Your task to perform on an android device: Search for razer blade on bestbuy, select the first entry, and add it to the cart. Image 0: 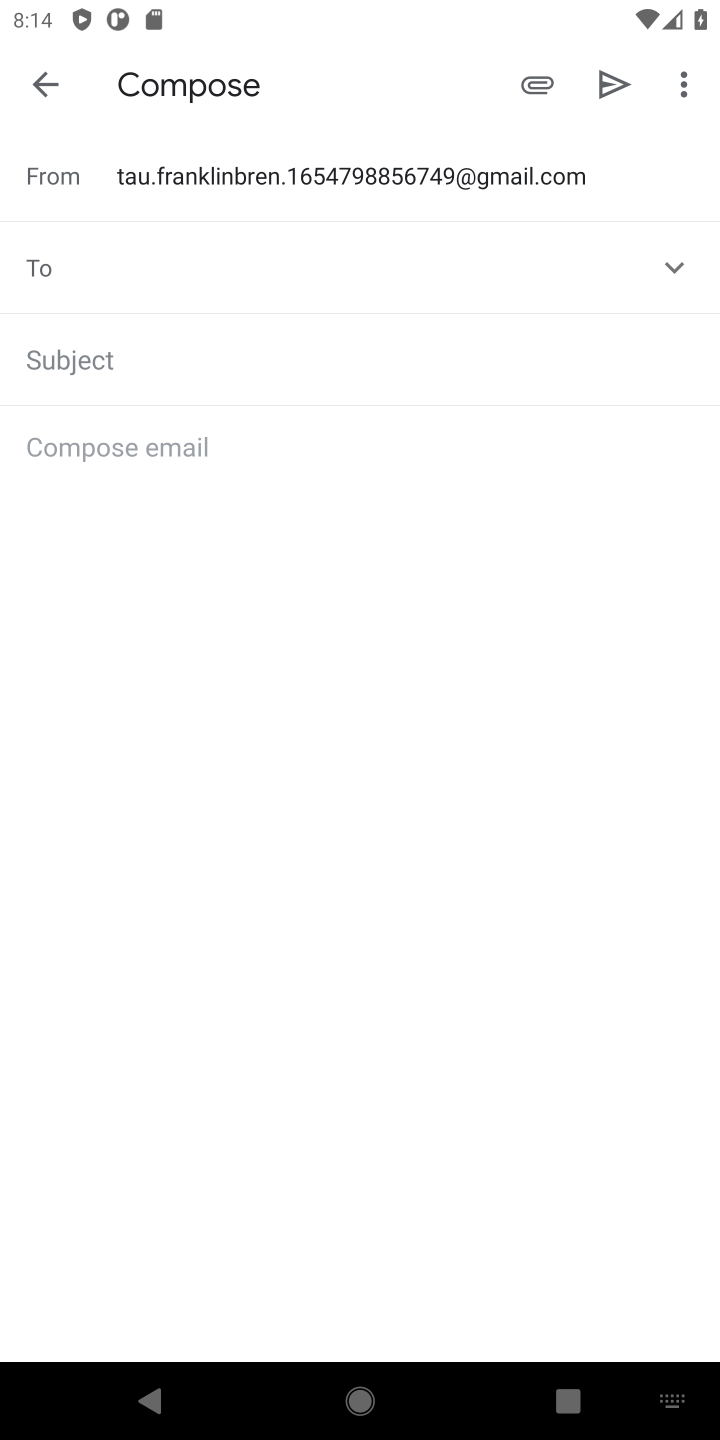
Step 0: press home button
Your task to perform on an android device: Search for razer blade on bestbuy, select the first entry, and add it to the cart. Image 1: 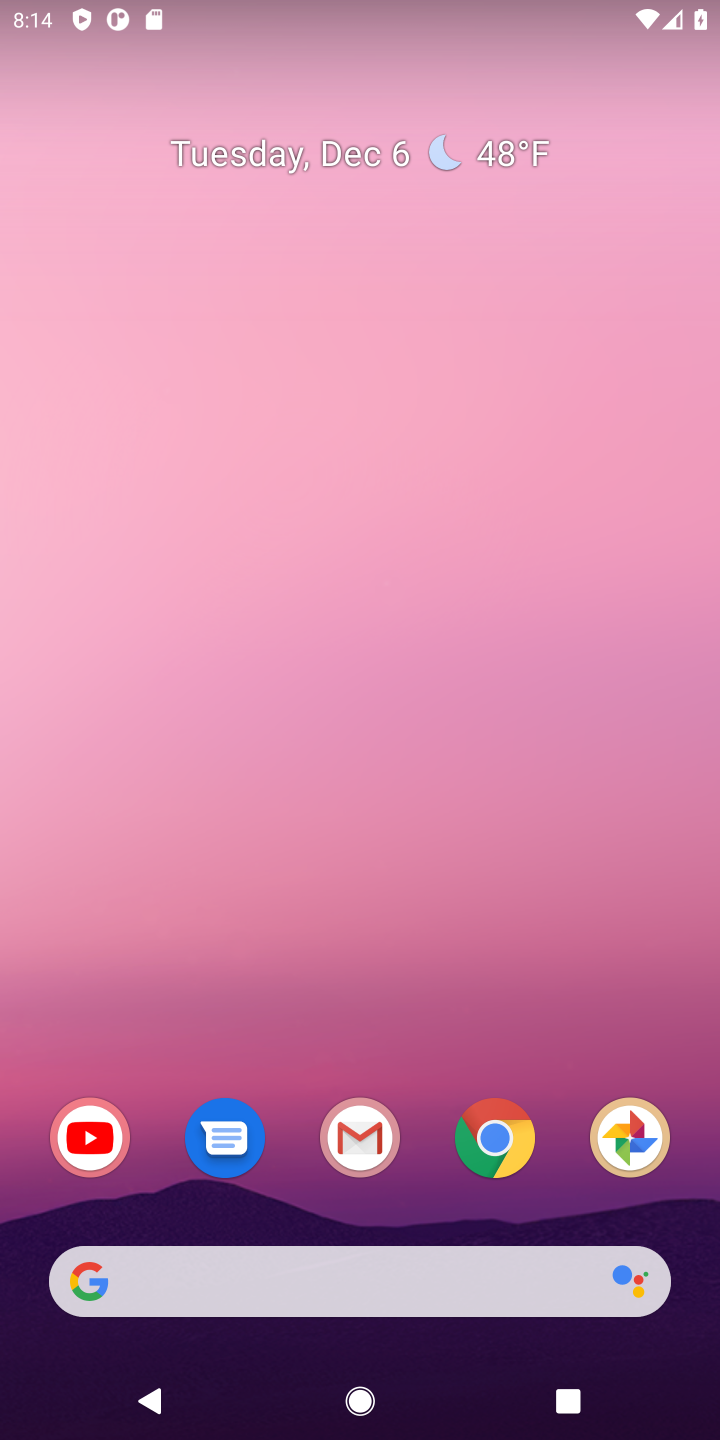
Step 1: click (483, 1144)
Your task to perform on an android device: Search for razer blade on bestbuy, select the first entry, and add it to the cart. Image 2: 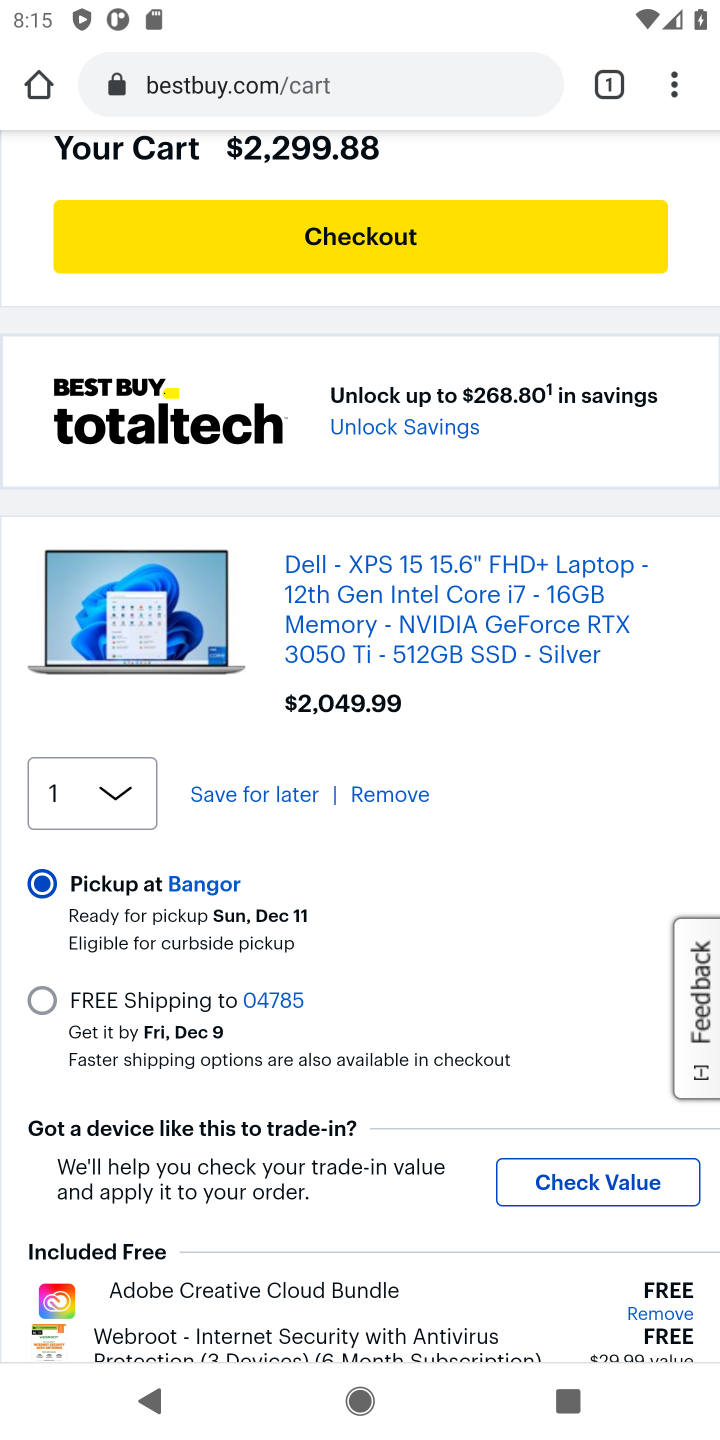
Step 2: drag from (571, 341) to (627, 982)
Your task to perform on an android device: Search for razer blade on bestbuy, select the first entry, and add it to the cart. Image 3: 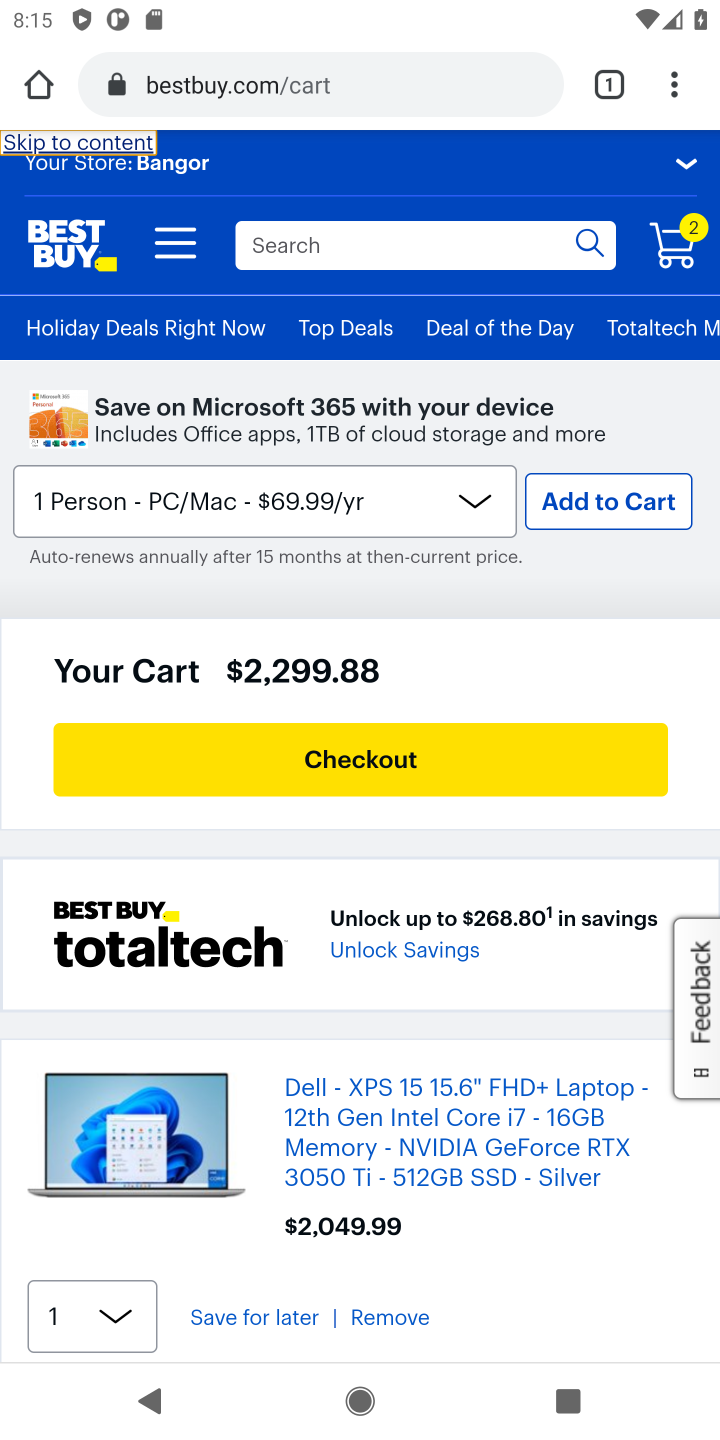
Step 3: click (347, 250)
Your task to perform on an android device: Search for razer blade on bestbuy, select the first entry, and add it to the cart. Image 4: 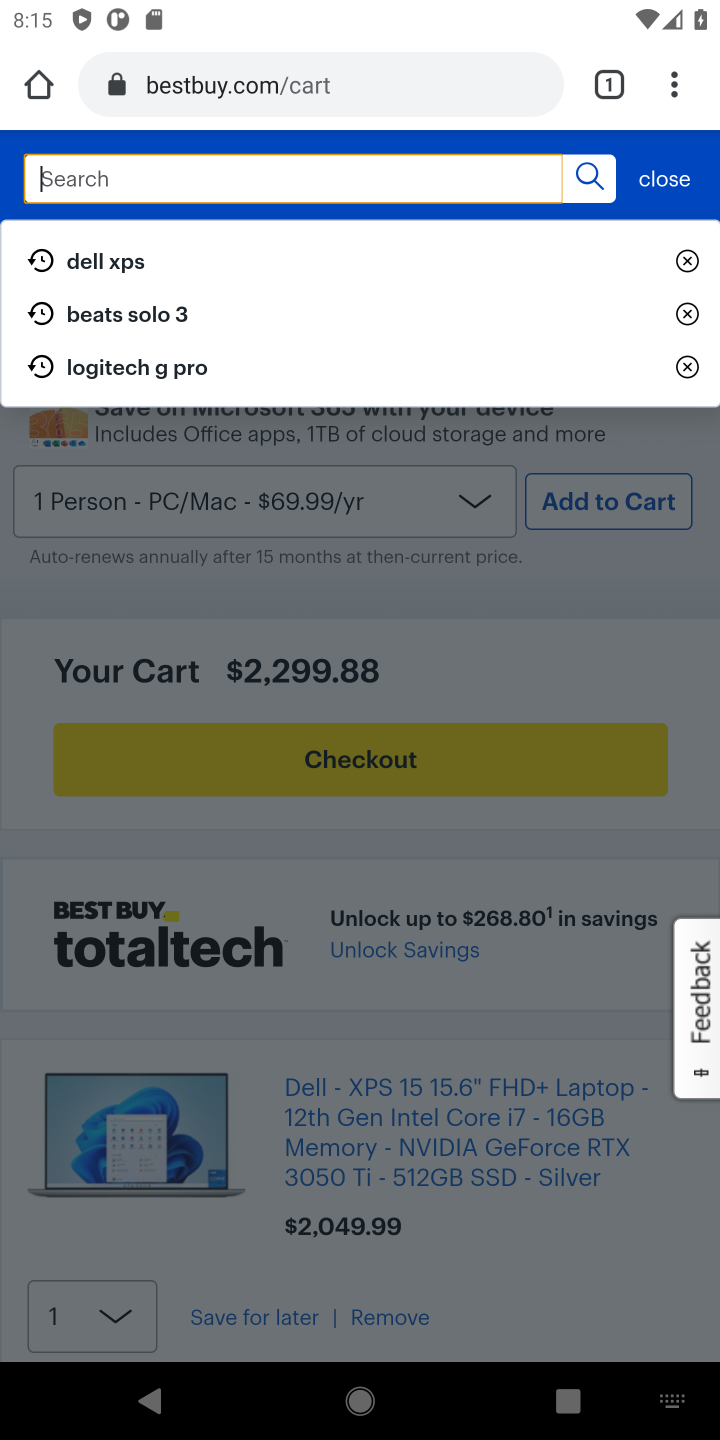
Step 4: type "razer blade"
Your task to perform on an android device: Search for razer blade on bestbuy, select the first entry, and add it to the cart. Image 5: 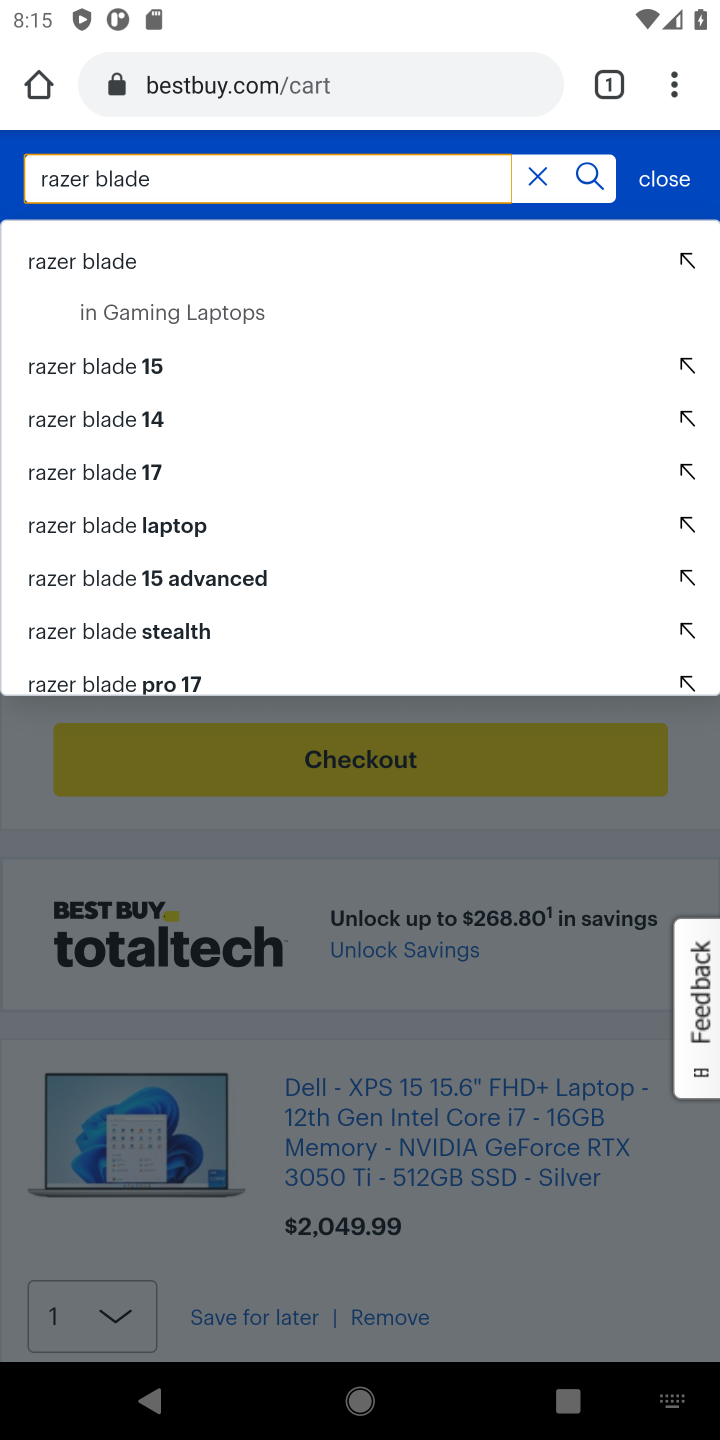
Step 5: click (106, 261)
Your task to perform on an android device: Search for razer blade on bestbuy, select the first entry, and add it to the cart. Image 6: 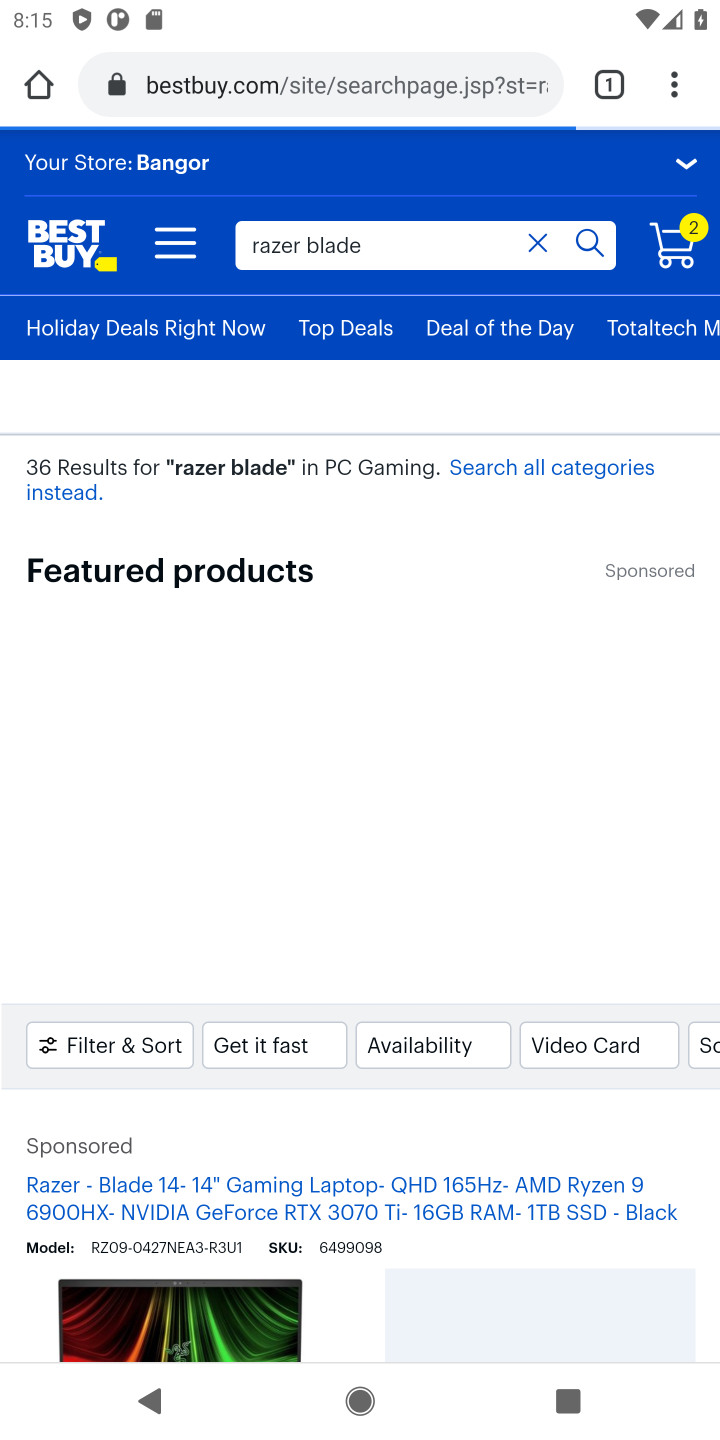
Step 6: drag from (324, 814) to (334, 309)
Your task to perform on an android device: Search for razer blade on bestbuy, select the first entry, and add it to the cart. Image 7: 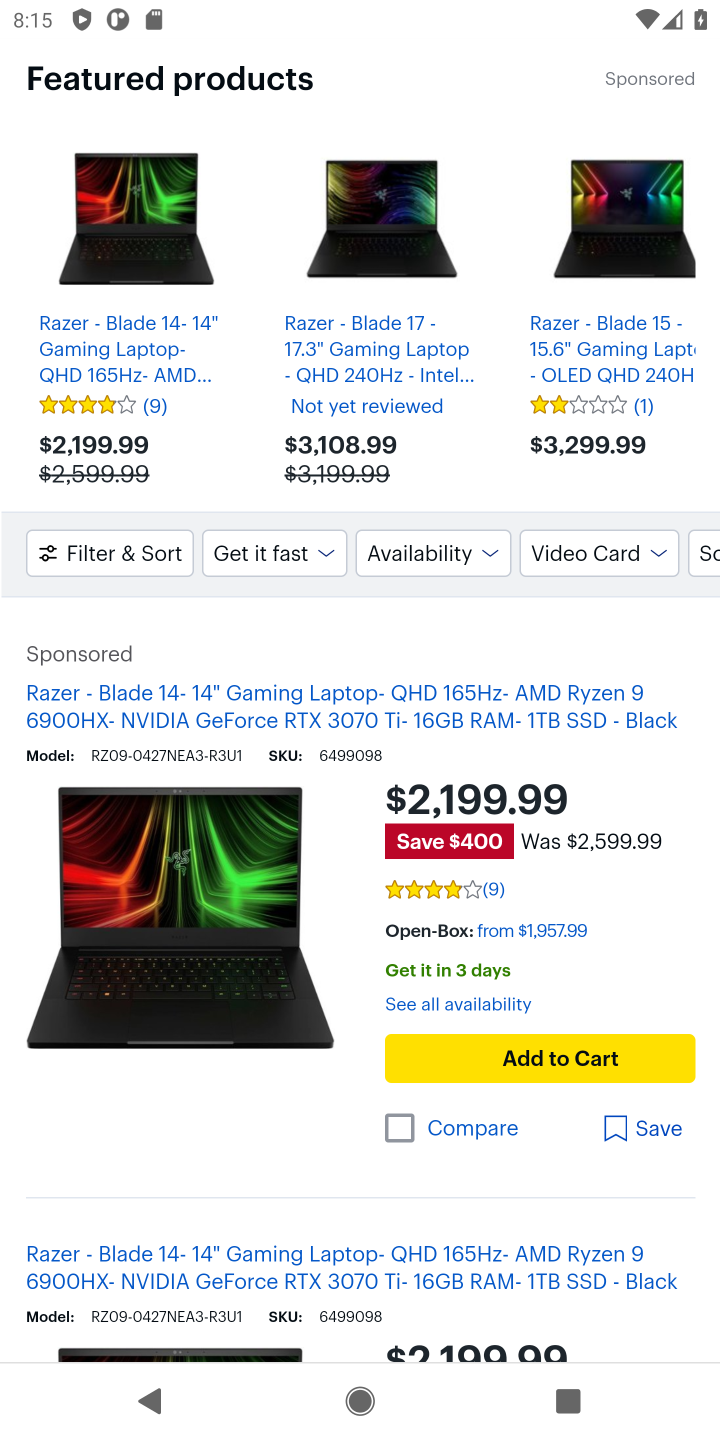
Step 7: click (526, 1045)
Your task to perform on an android device: Search for razer blade on bestbuy, select the first entry, and add it to the cart. Image 8: 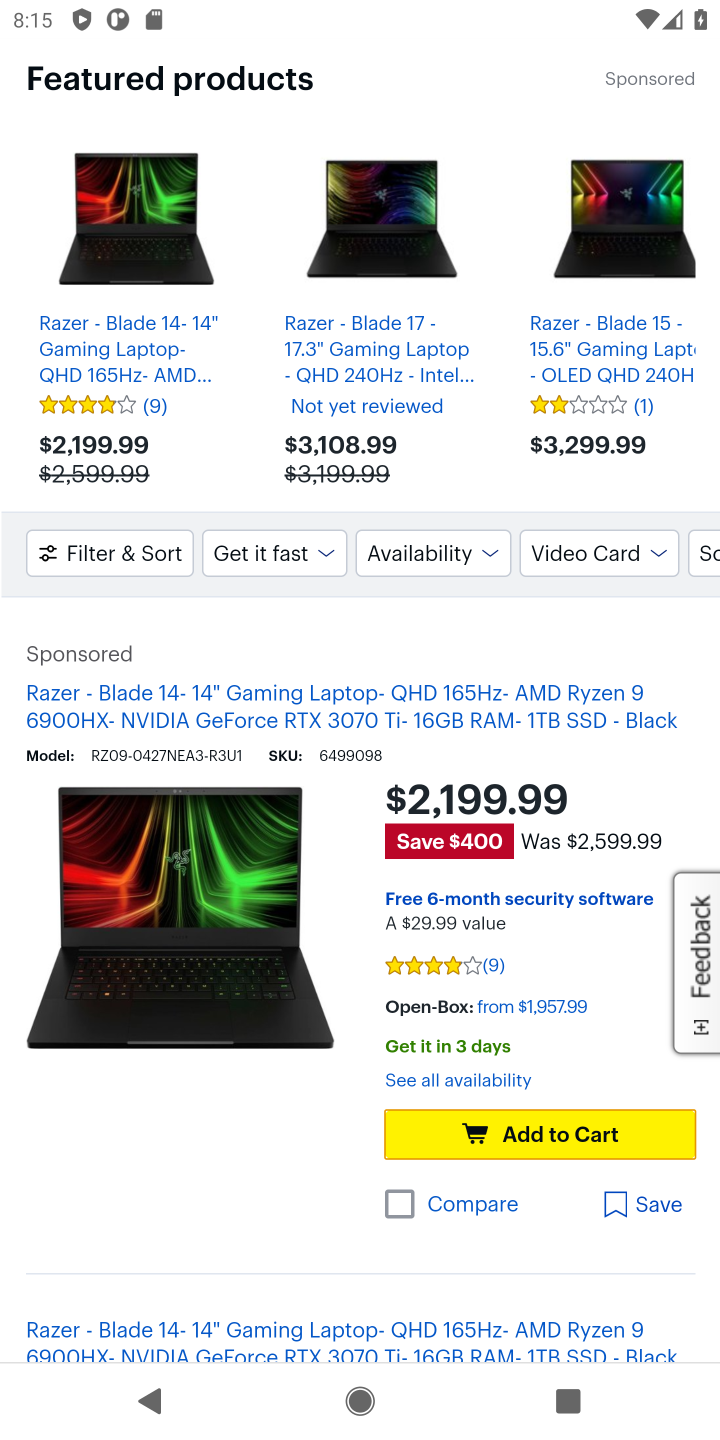
Step 8: click (526, 1133)
Your task to perform on an android device: Search for razer blade on bestbuy, select the first entry, and add it to the cart. Image 9: 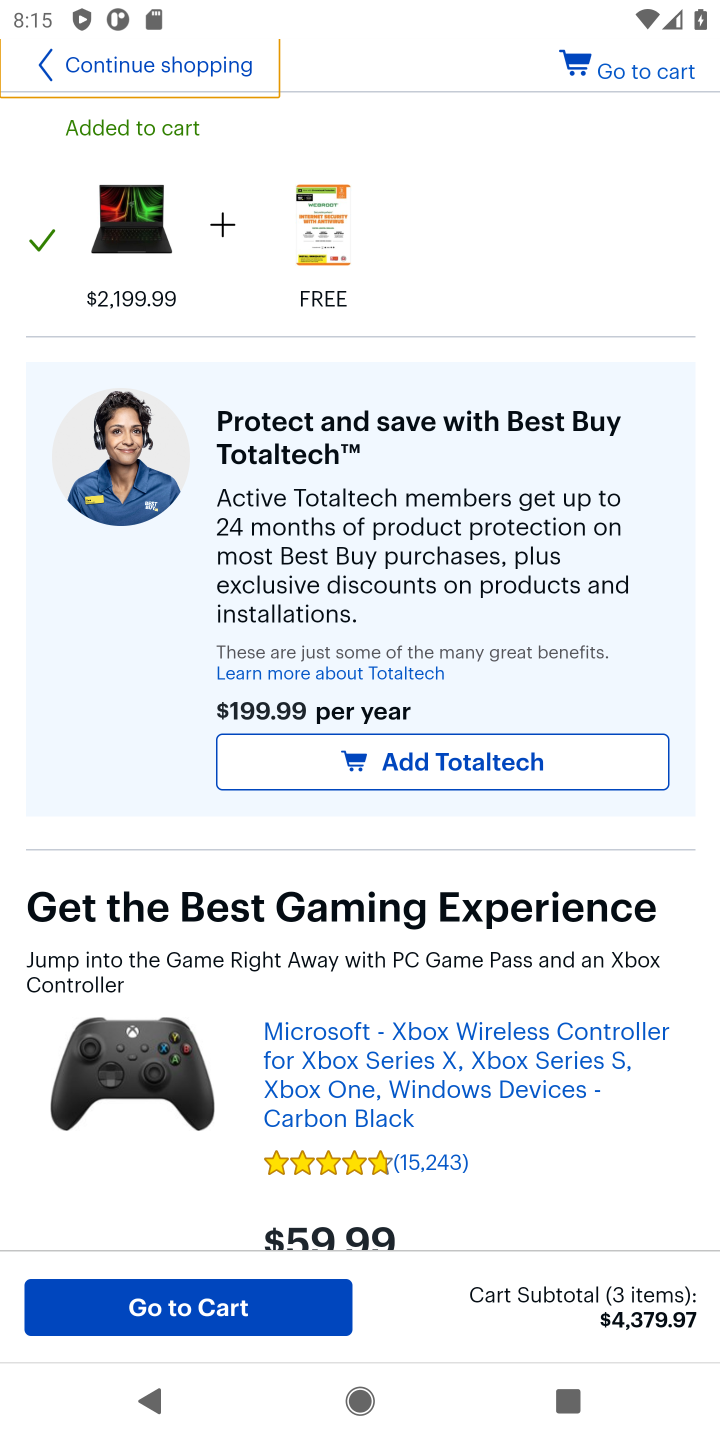
Step 9: task complete